Your task to perform on an android device: turn on airplane mode Image 0: 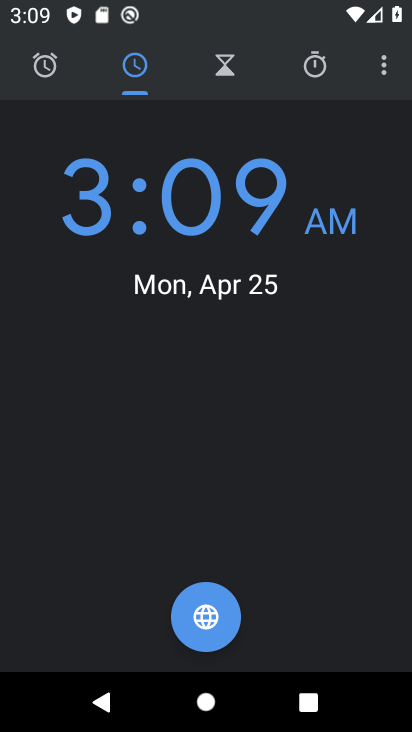
Step 0: press home button
Your task to perform on an android device: turn on airplane mode Image 1: 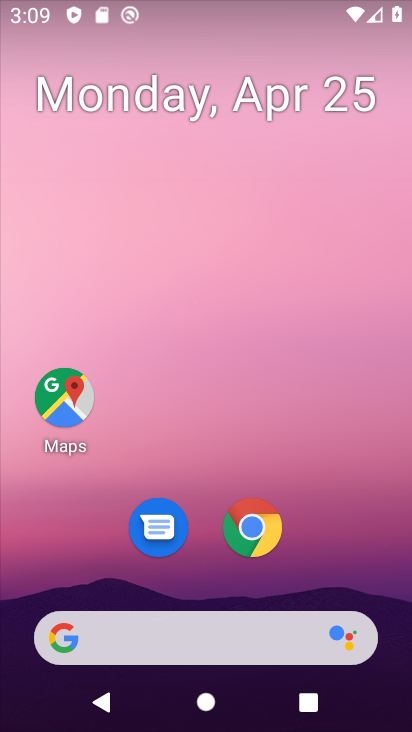
Step 1: drag from (163, 638) to (246, 146)
Your task to perform on an android device: turn on airplane mode Image 2: 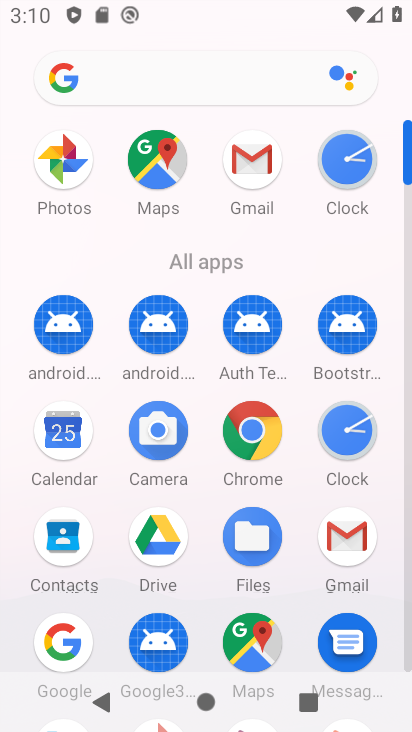
Step 2: drag from (205, 608) to (279, 172)
Your task to perform on an android device: turn on airplane mode Image 3: 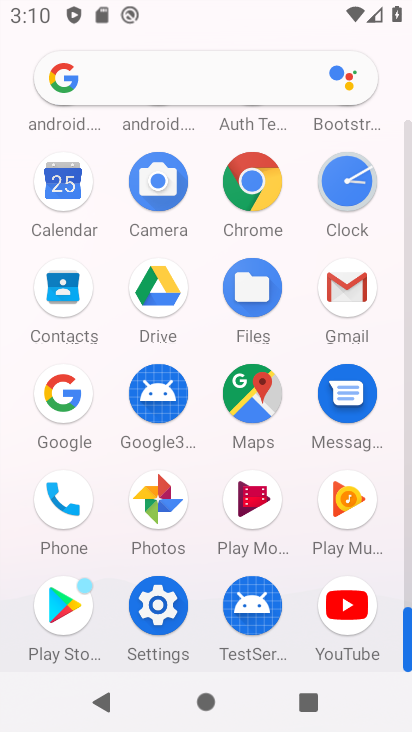
Step 3: click (167, 603)
Your task to perform on an android device: turn on airplane mode Image 4: 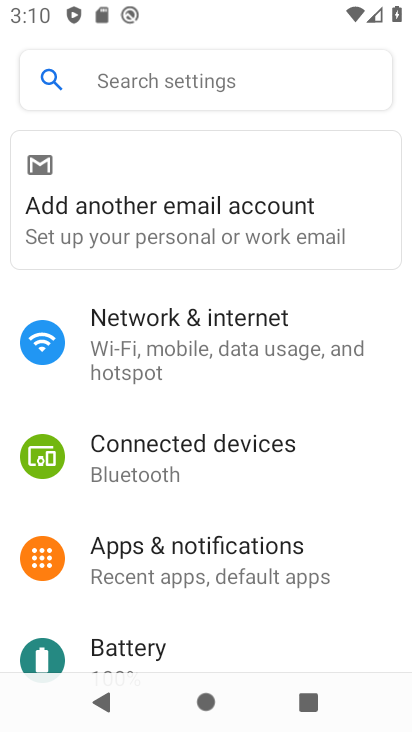
Step 4: click (194, 345)
Your task to perform on an android device: turn on airplane mode Image 5: 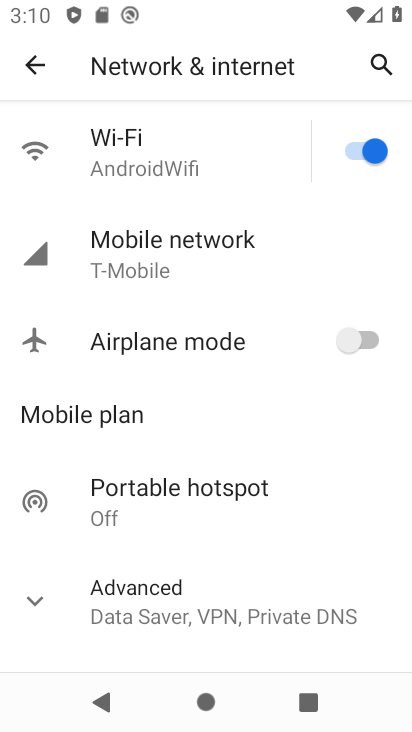
Step 5: click (368, 338)
Your task to perform on an android device: turn on airplane mode Image 6: 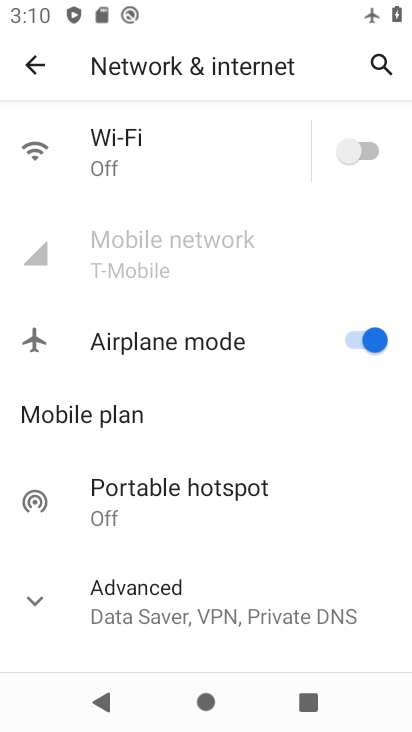
Step 6: task complete